Your task to perform on an android device: search for starred emails in the gmail app Image 0: 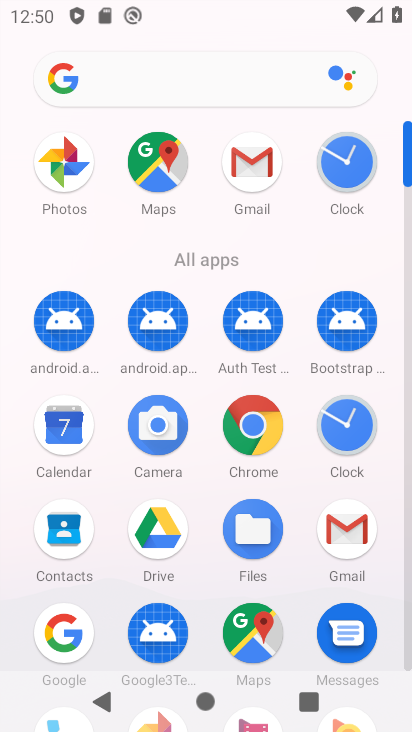
Step 0: click (257, 157)
Your task to perform on an android device: search for starred emails in the gmail app Image 1: 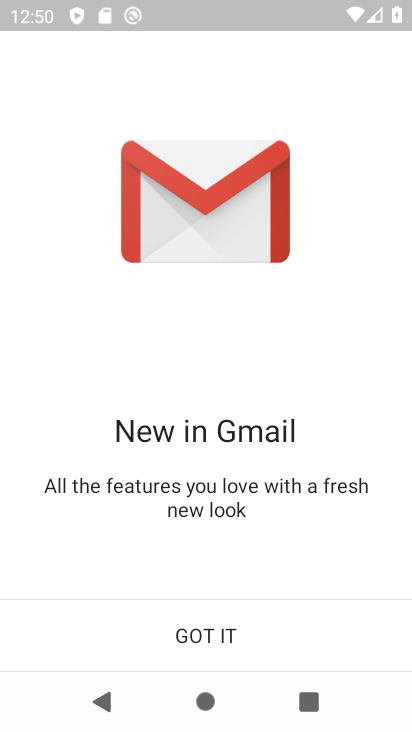
Step 1: click (206, 634)
Your task to perform on an android device: search for starred emails in the gmail app Image 2: 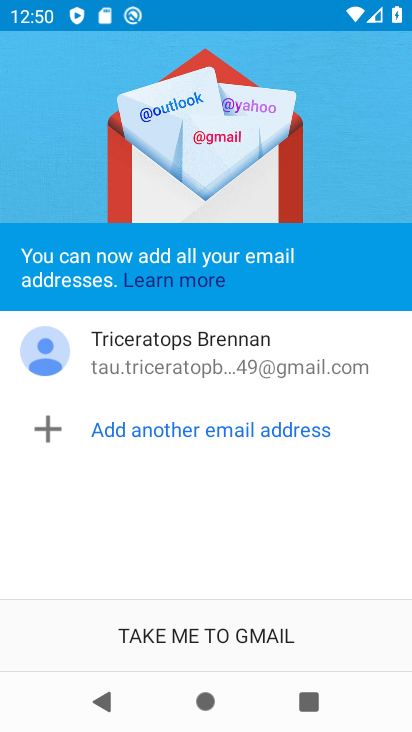
Step 2: click (206, 634)
Your task to perform on an android device: search for starred emails in the gmail app Image 3: 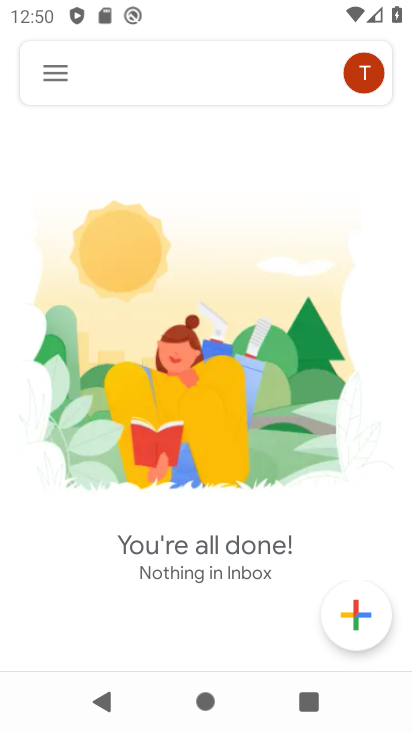
Step 3: click (51, 67)
Your task to perform on an android device: search for starred emails in the gmail app Image 4: 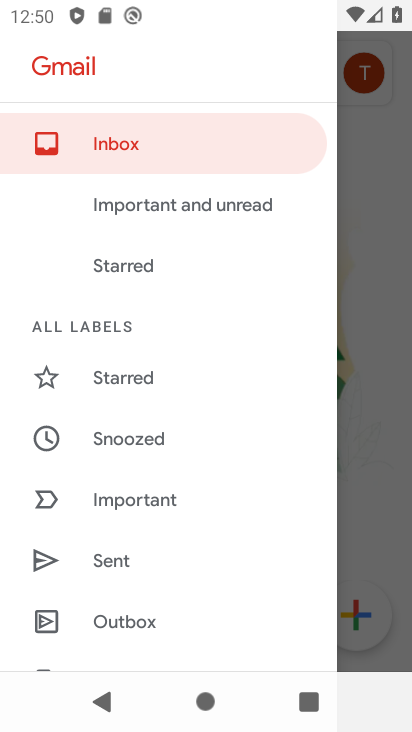
Step 4: click (125, 375)
Your task to perform on an android device: search for starred emails in the gmail app Image 5: 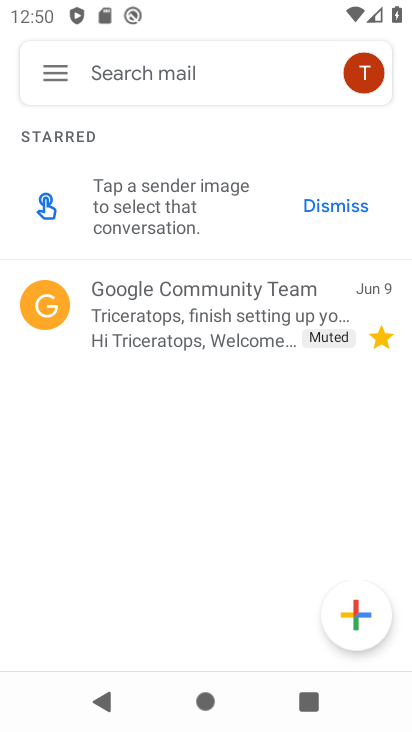
Step 5: task complete